Your task to perform on an android device: Show me popular videos on Youtube Image 0: 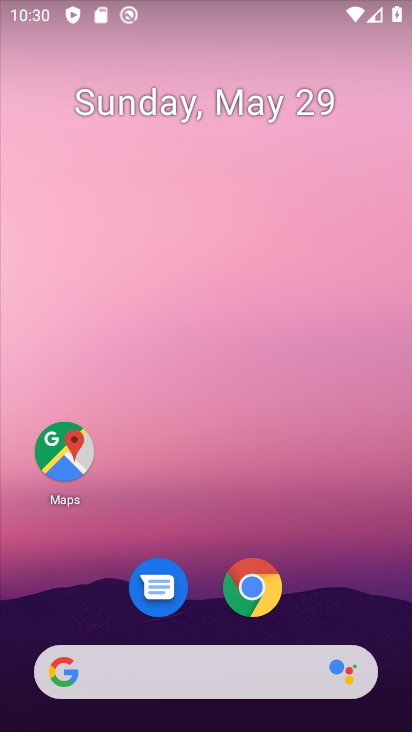
Step 0: drag from (323, 620) to (227, 212)
Your task to perform on an android device: Show me popular videos on Youtube Image 1: 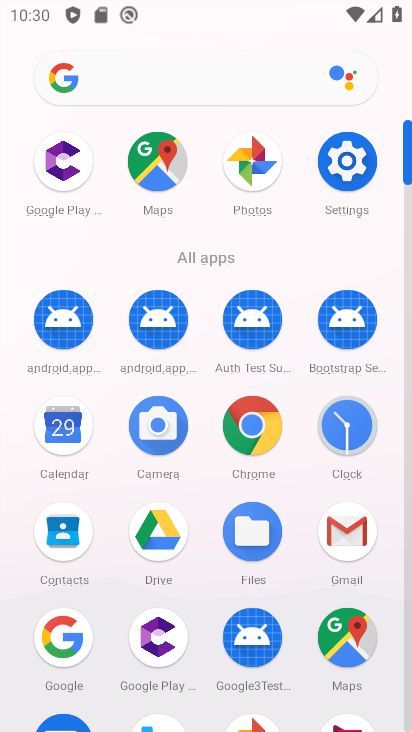
Step 1: click (411, 712)
Your task to perform on an android device: Show me popular videos on Youtube Image 2: 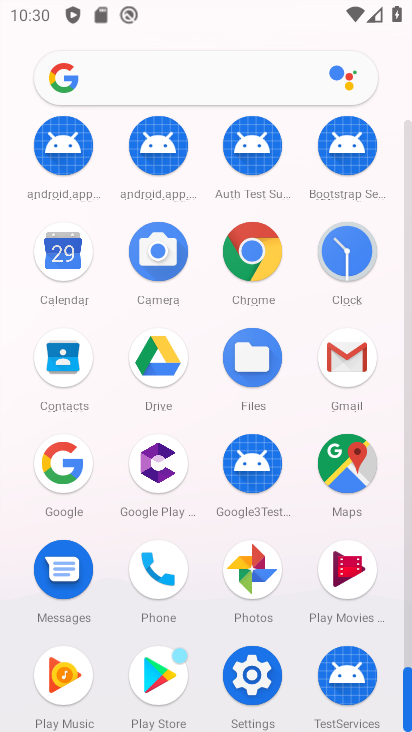
Step 2: drag from (393, 632) to (377, 428)
Your task to perform on an android device: Show me popular videos on Youtube Image 3: 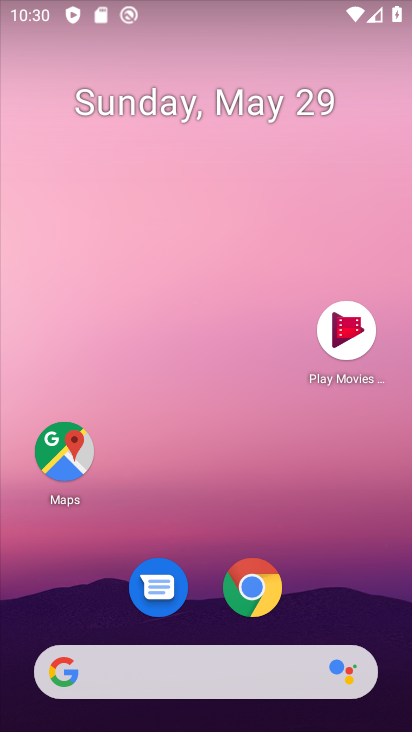
Step 3: drag from (306, 572) to (222, 173)
Your task to perform on an android device: Show me popular videos on Youtube Image 4: 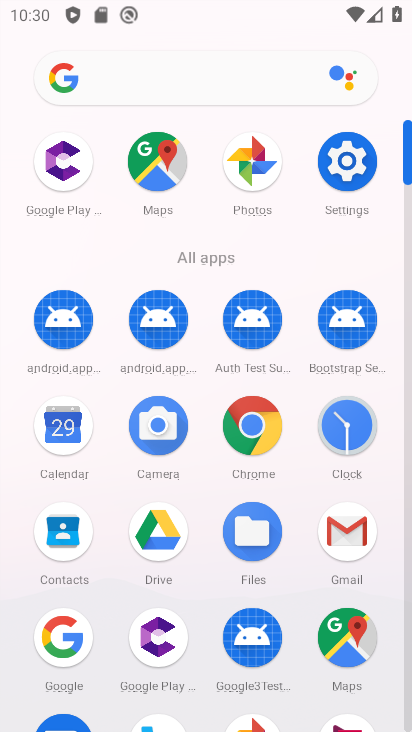
Step 4: click (408, 720)
Your task to perform on an android device: Show me popular videos on Youtube Image 5: 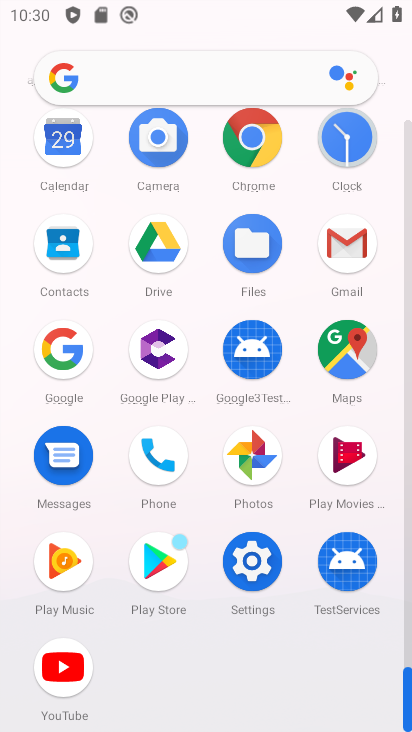
Step 5: click (65, 673)
Your task to perform on an android device: Show me popular videos on Youtube Image 6: 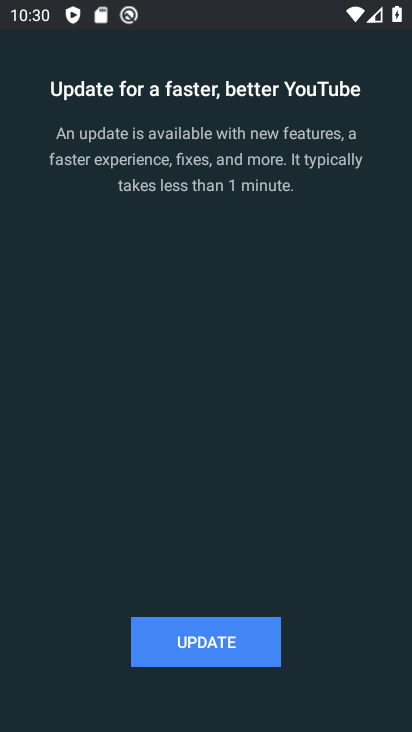
Step 6: click (228, 649)
Your task to perform on an android device: Show me popular videos on Youtube Image 7: 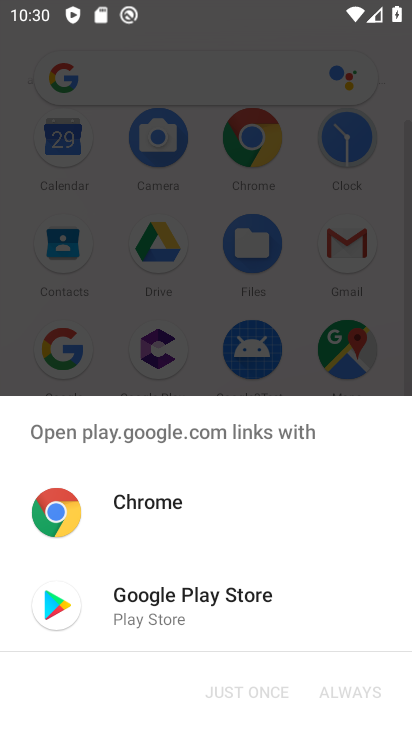
Step 7: click (239, 600)
Your task to perform on an android device: Show me popular videos on Youtube Image 8: 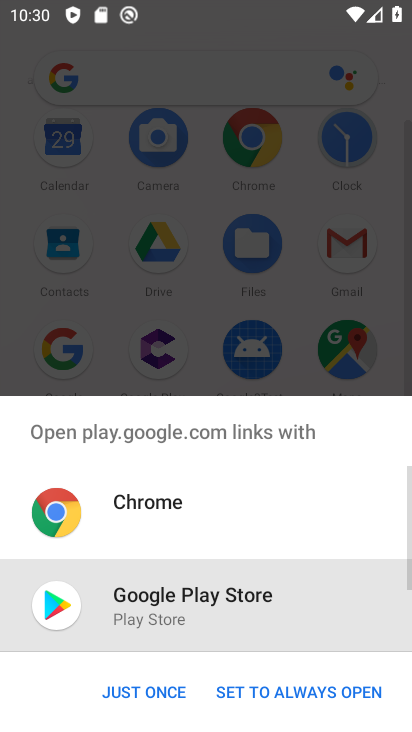
Step 8: click (146, 688)
Your task to perform on an android device: Show me popular videos on Youtube Image 9: 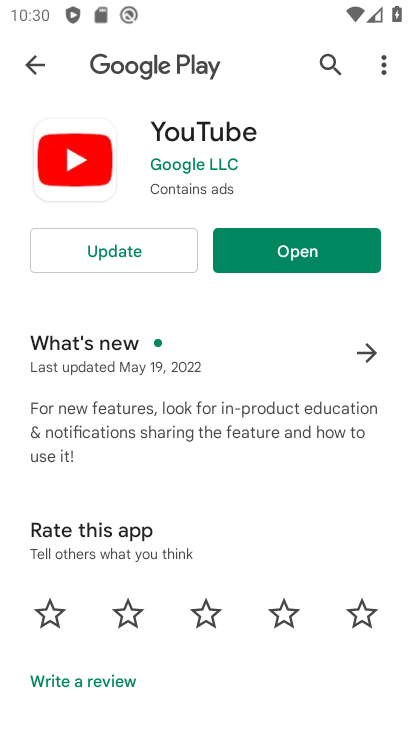
Step 9: click (124, 257)
Your task to perform on an android device: Show me popular videos on Youtube Image 10: 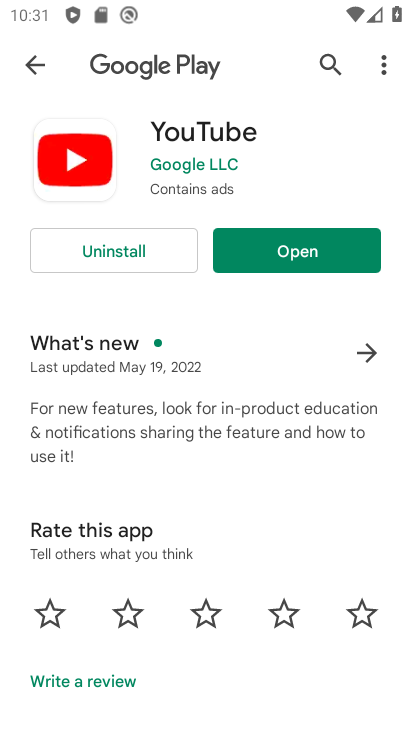
Step 10: click (326, 238)
Your task to perform on an android device: Show me popular videos on Youtube Image 11: 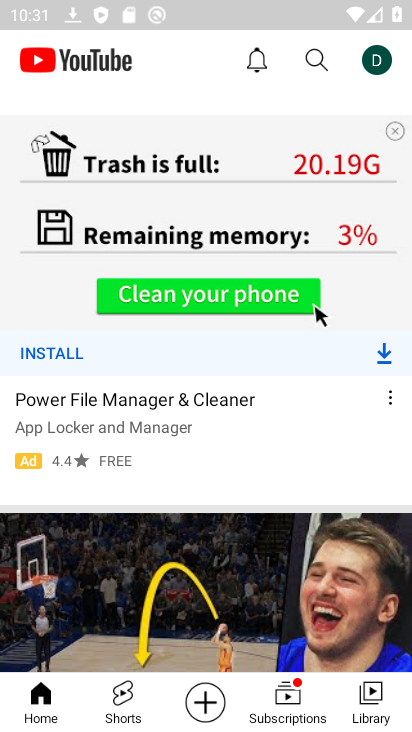
Step 11: task complete